Your task to perform on an android device: Open calendar and show me the second week of next month Image 0: 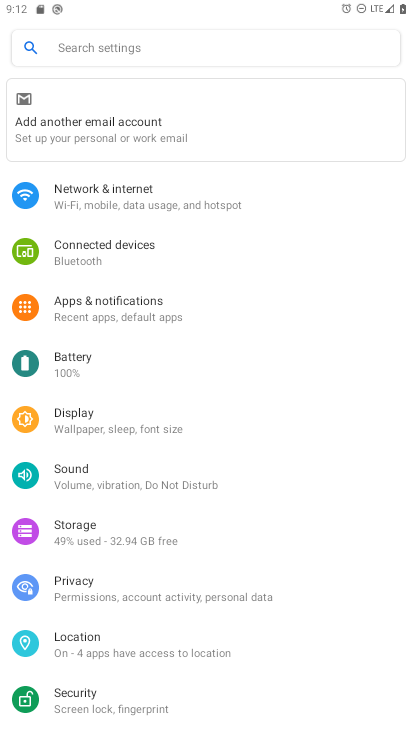
Step 0: press home button
Your task to perform on an android device: Open calendar and show me the second week of next month Image 1: 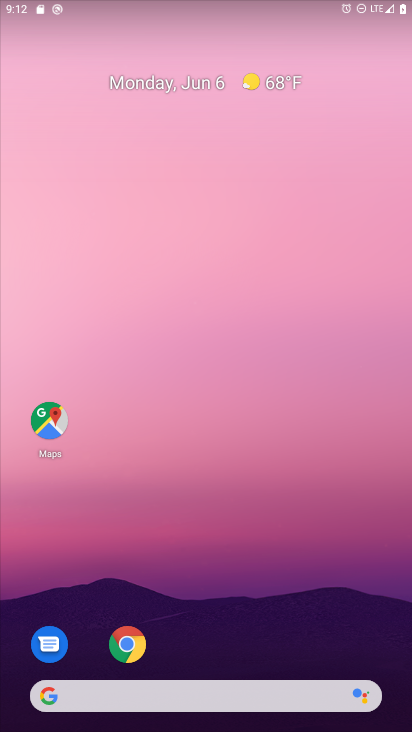
Step 1: drag from (238, 699) to (190, 146)
Your task to perform on an android device: Open calendar and show me the second week of next month Image 2: 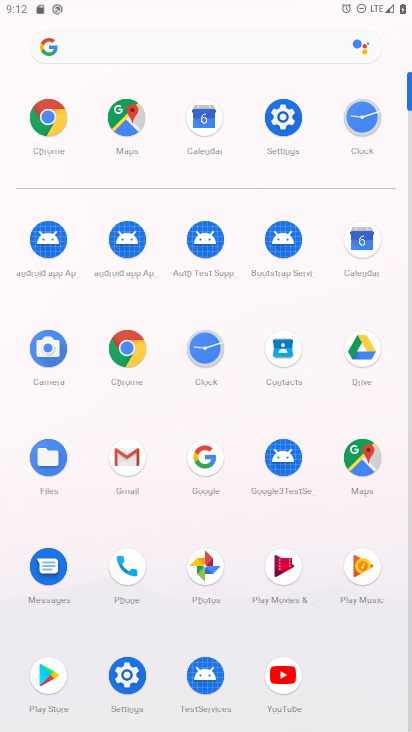
Step 2: click (359, 249)
Your task to perform on an android device: Open calendar and show me the second week of next month Image 3: 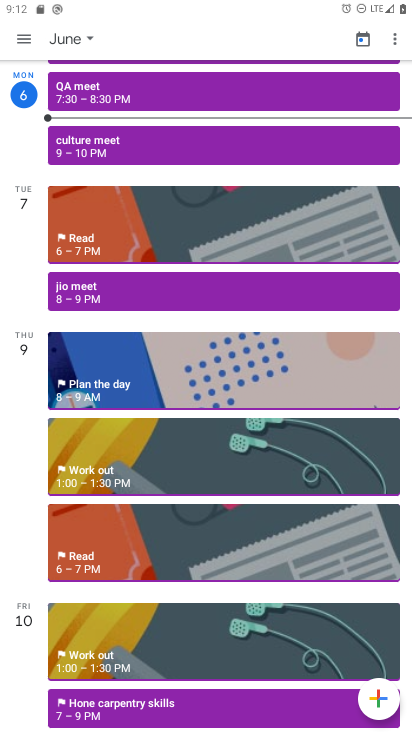
Step 3: click (11, 40)
Your task to perform on an android device: Open calendar and show me the second week of next month Image 4: 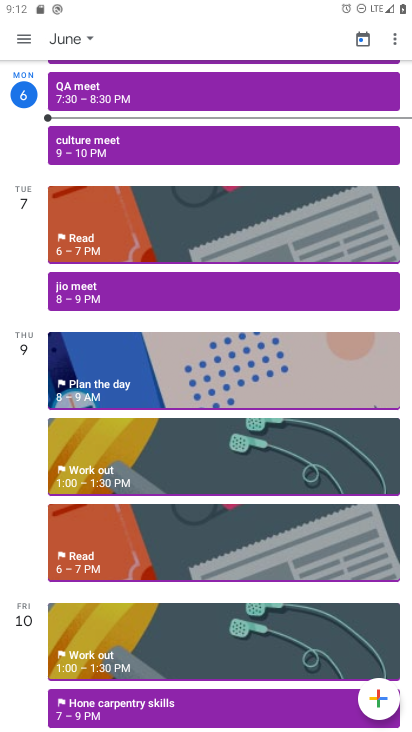
Step 4: click (30, 38)
Your task to perform on an android device: Open calendar and show me the second week of next month Image 5: 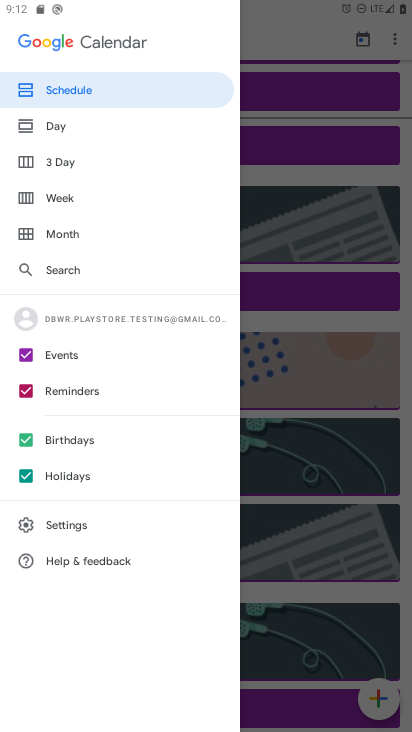
Step 5: click (58, 221)
Your task to perform on an android device: Open calendar and show me the second week of next month Image 6: 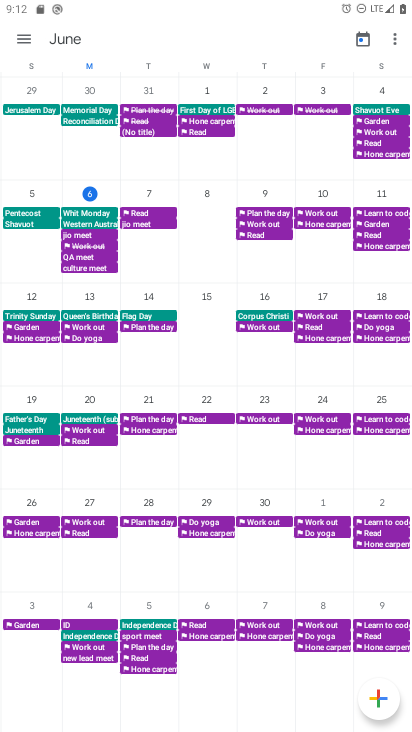
Step 6: drag from (397, 461) to (0, 411)
Your task to perform on an android device: Open calendar and show me the second week of next month Image 7: 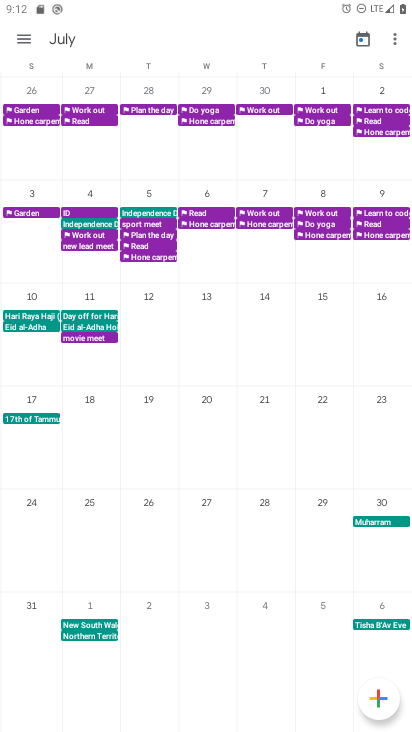
Step 7: click (88, 277)
Your task to perform on an android device: Open calendar and show me the second week of next month Image 8: 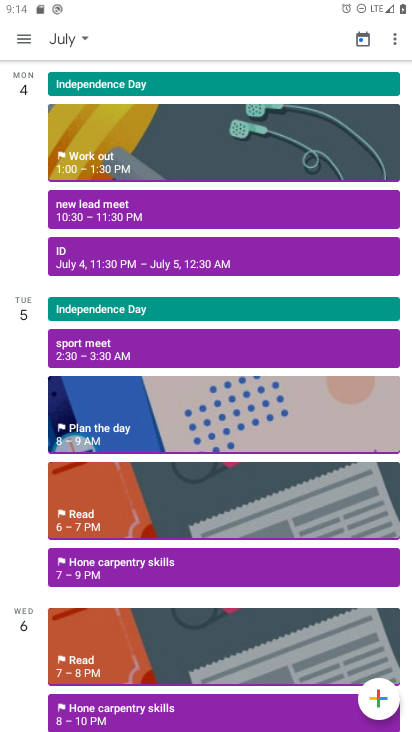
Step 8: task complete